Your task to perform on an android device: Open privacy settings Image 0: 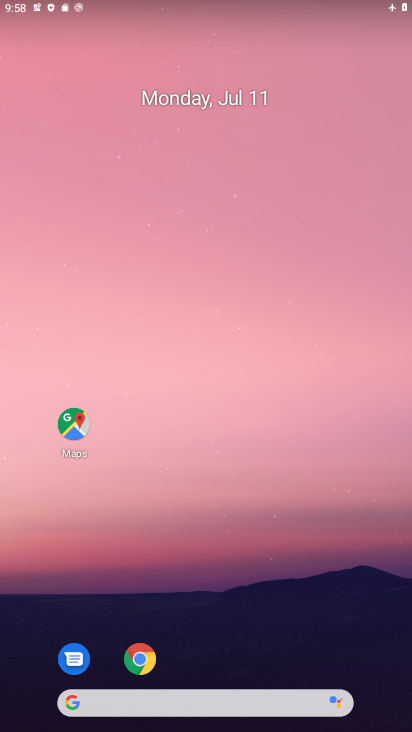
Step 0: drag from (210, 726) to (171, 93)
Your task to perform on an android device: Open privacy settings Image 1: 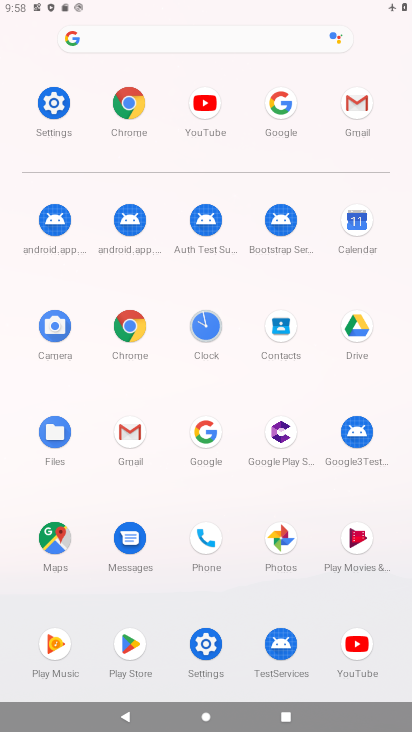
Step 1: click (45, 99)
Your task to perform on an android device: Open privacy settings Image 2: 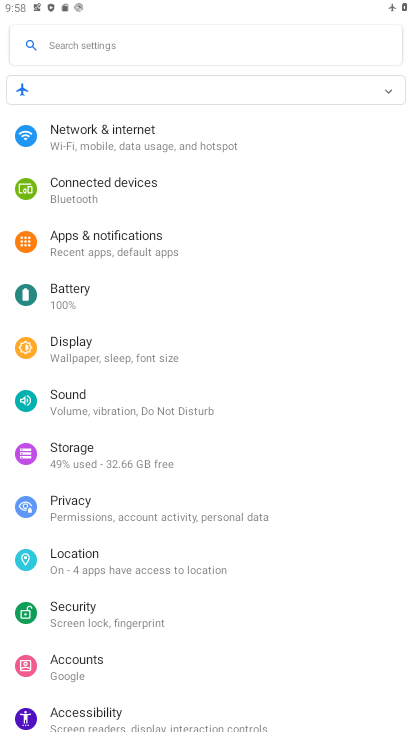
Step 2: click (69, 512)
Your task to perform on an android device: Open privacy settings Image 3: 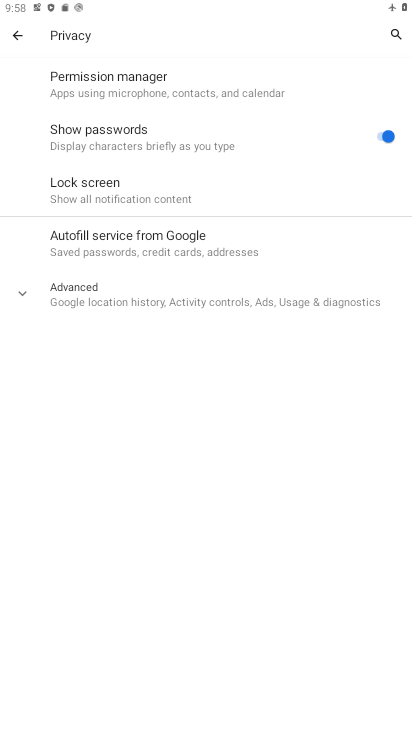
Step 3: task complete